Your task to perform on an android device: uninstall "The Home Depot" Image 0: 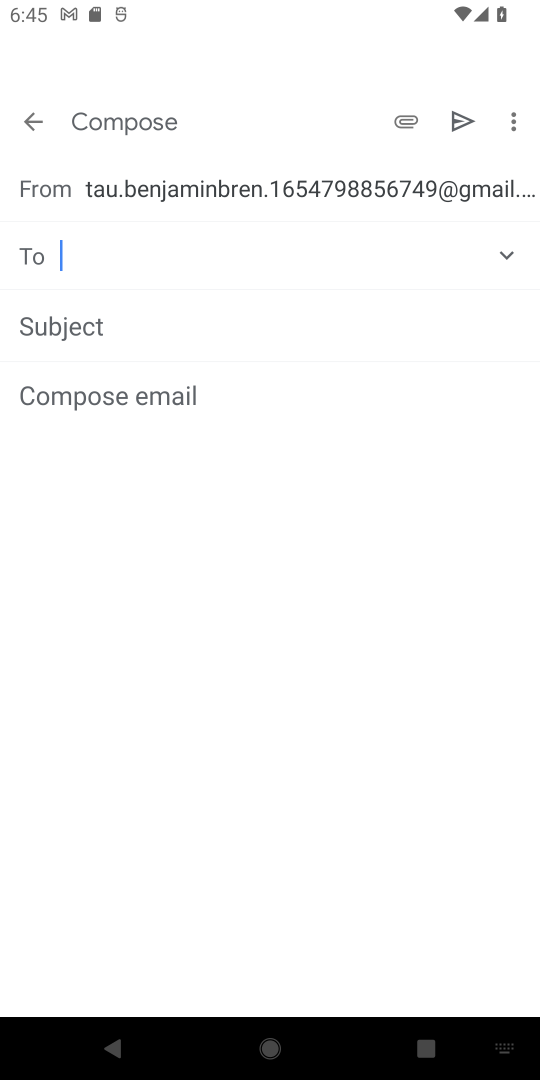
Step 0: press home button
Your task to perform on an android device: uninstall "The Home Depot" Image 1: 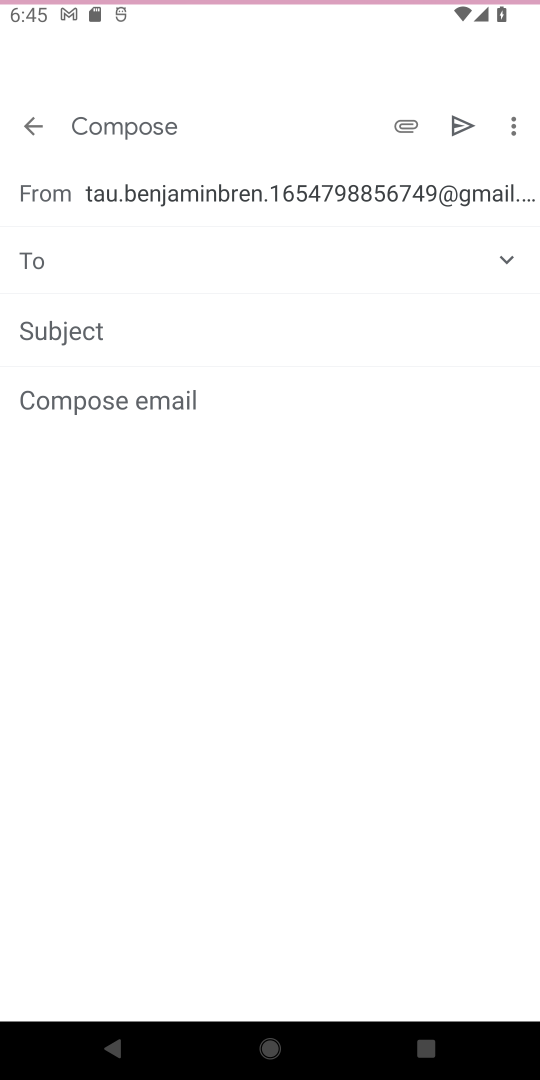
Step 1: drag from (268, 929) to (359, 87)
Your task to perform on an android device: uninstall "The Home Depot" Image 2: 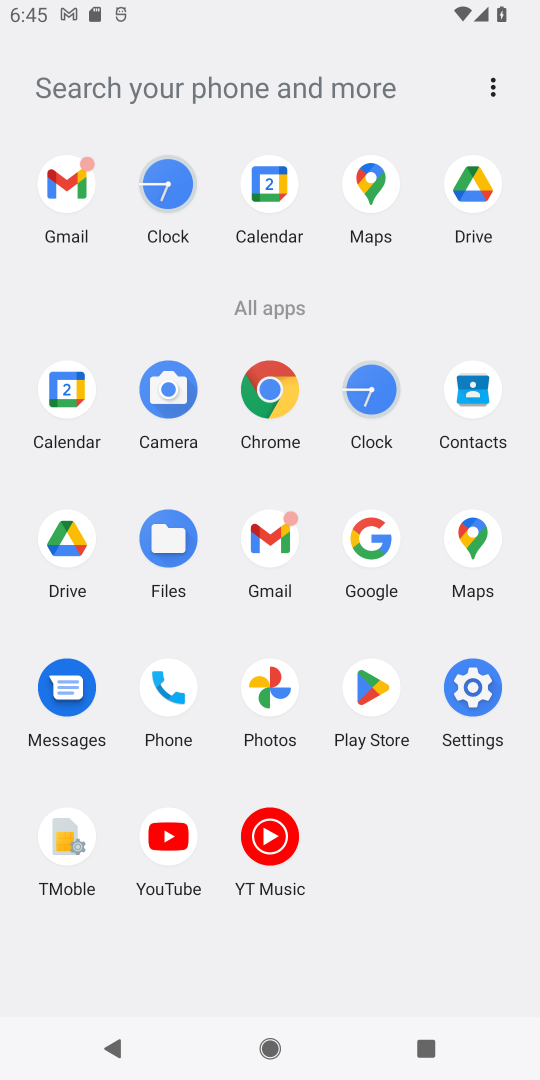
Step 2: click (375, 694)
Your task to perform on an android device: uninstall "The Home Depot" Image 3: 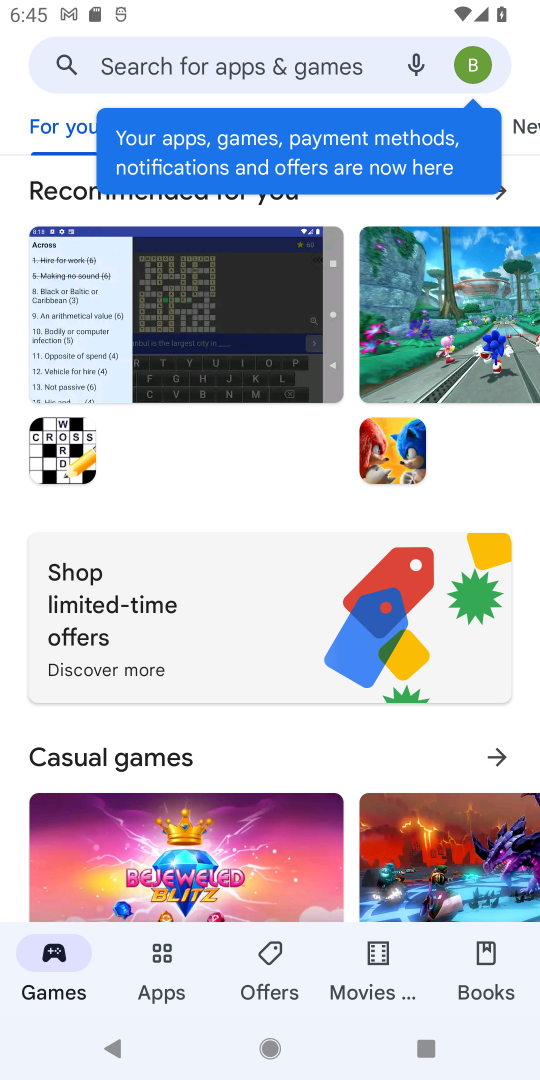
Step 3: drag from (355, 218) to (360, 744)
Your task to perform on an android device: uninstall "The Home Depot" Image 4: 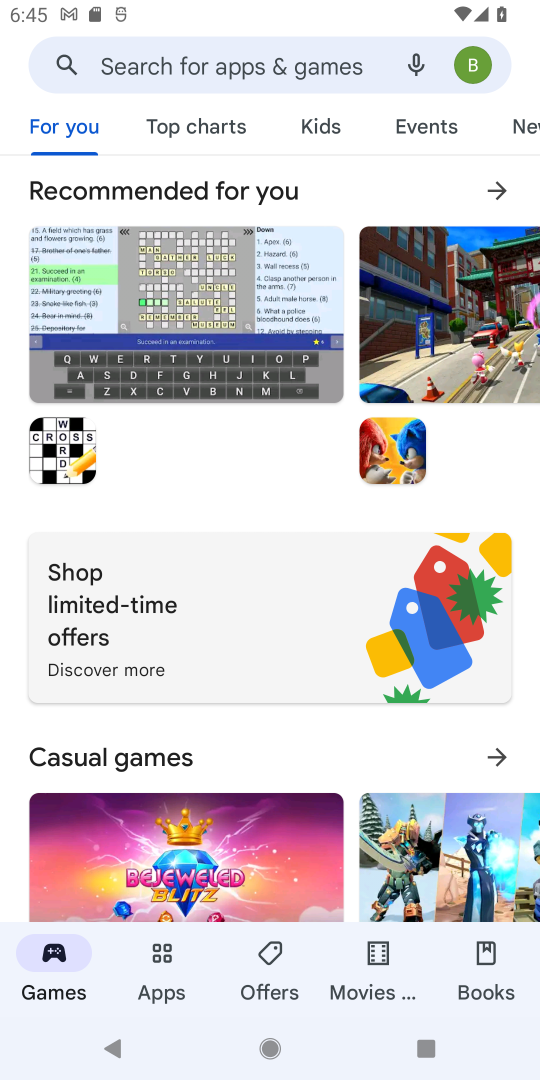
Step 4: click (174, 63)
Your task to perform on an android device: uninstall "The Home Depot" Image 5: 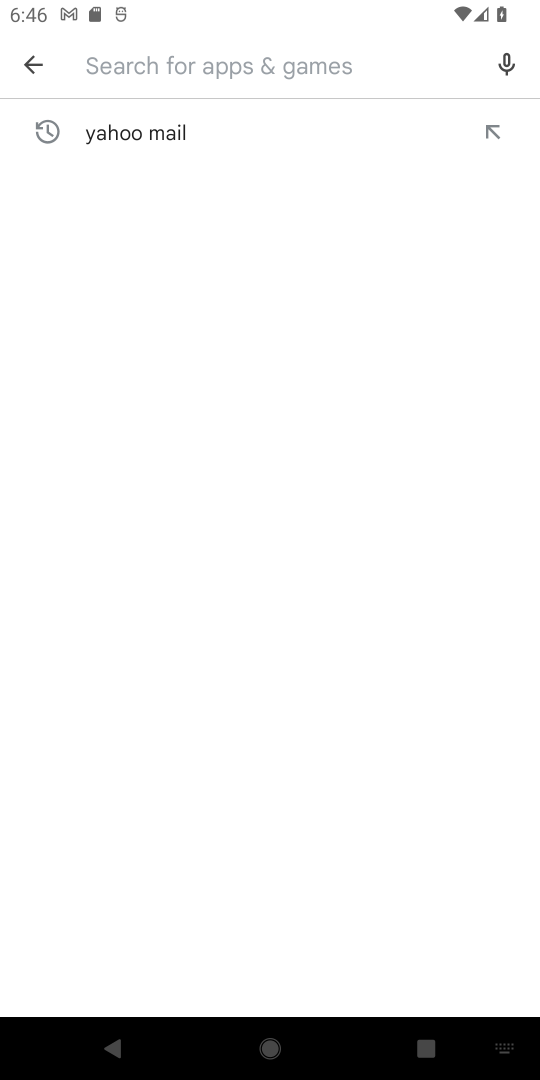
Step 5: type "The Home Depot"
Your task to perform on an android device: uninstall "The Home Depot" Image 6: 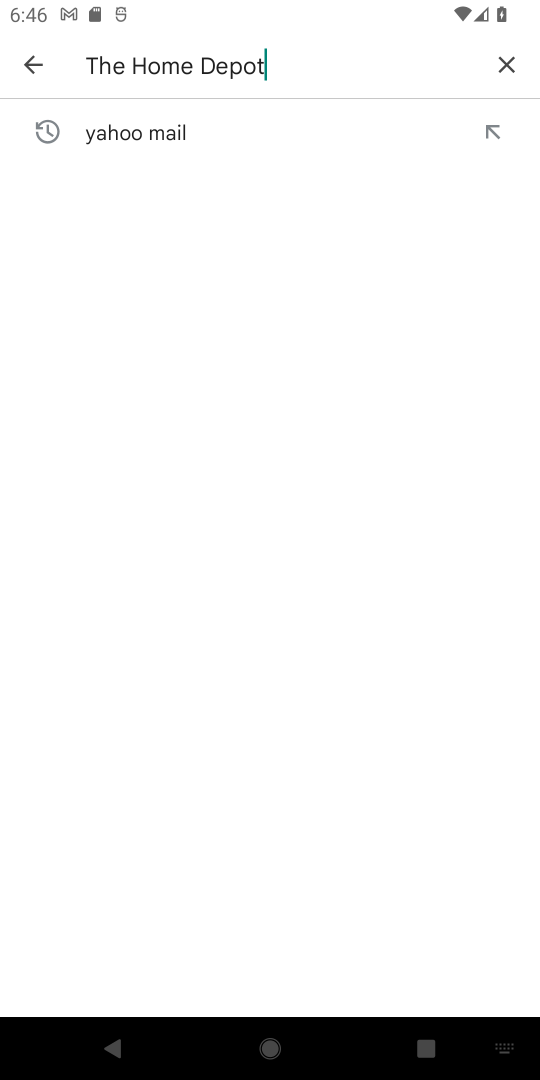
Step 6: type ""
Your task to perform on an android device: uninstall "The Home Depot" Image 7: 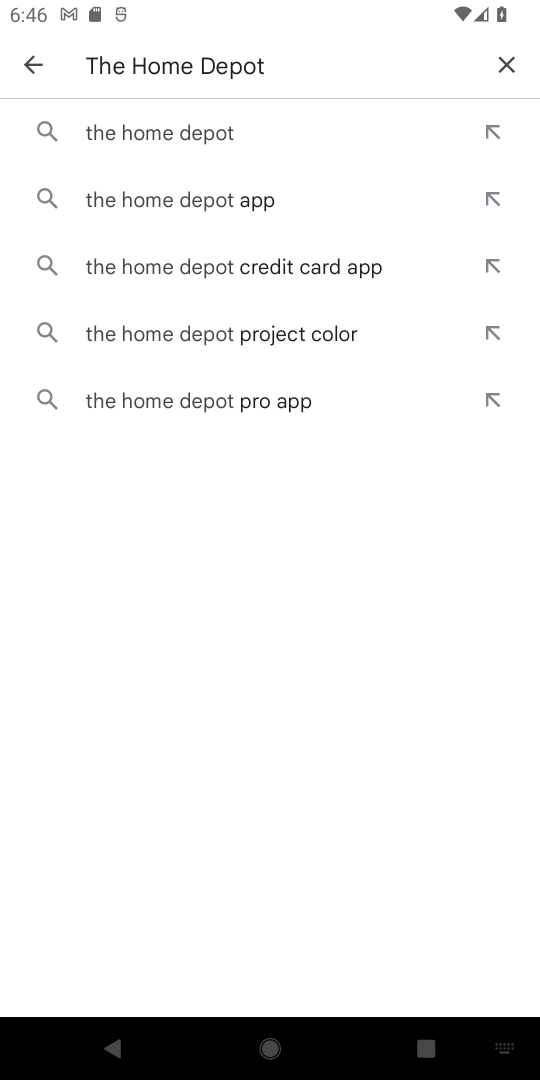
Step 7: click (169, 137)
Your task to perform on an android device: uninstall "The Home Depot" Image 8: 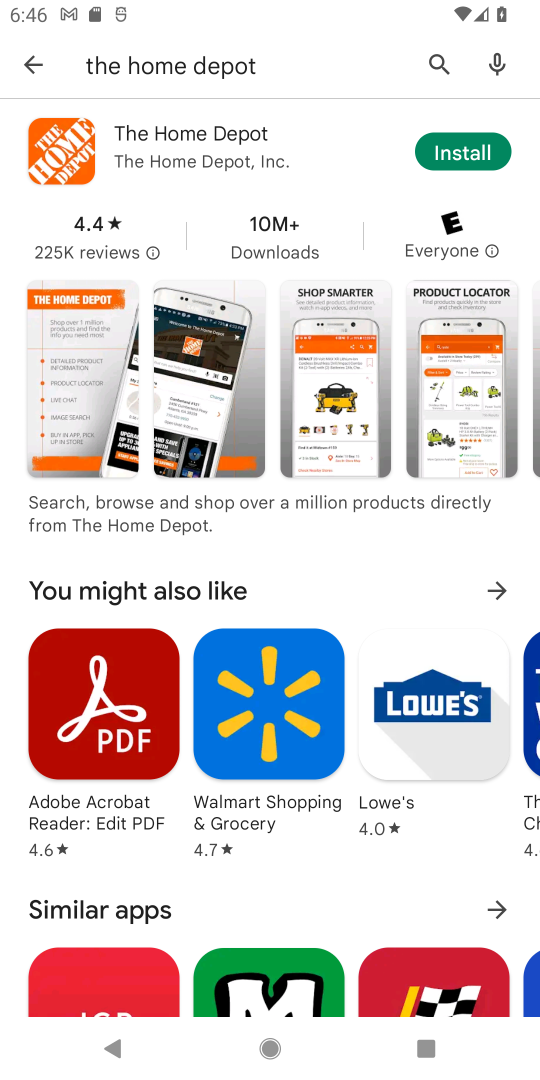
Step 8: click (185, 145)
Your task to perform on an android device: uninstall "The Home Depot" Image 9: 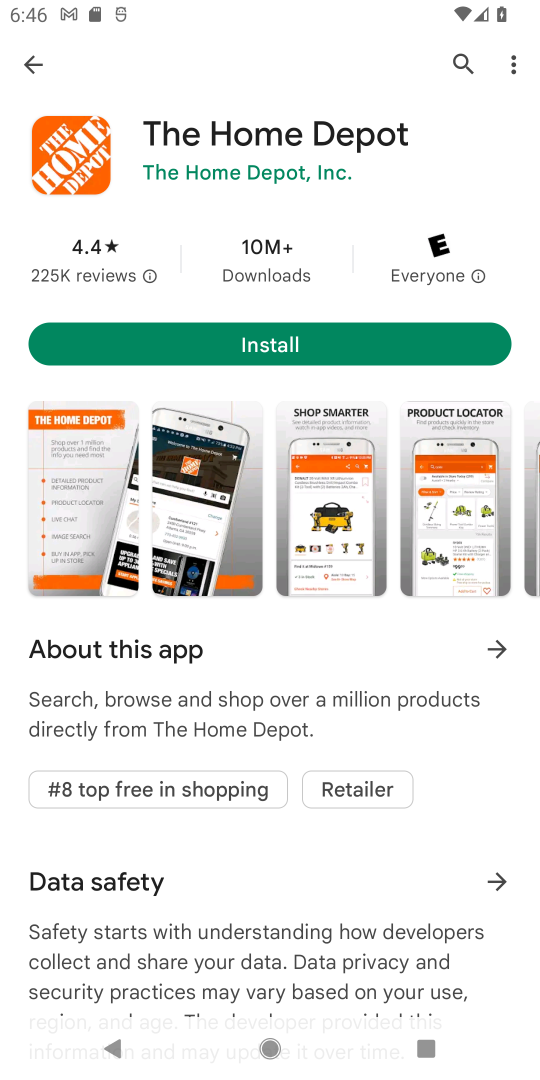
Step 9: task complete